Your task to perform on an android device: turn pop-ups off in chrome Image 0: 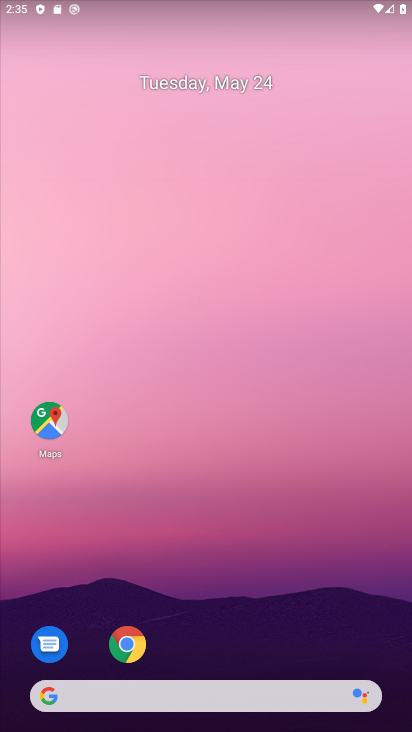
Step 0: drag from (311, 636) to (334, 185)
Your task to perform on an android device: turn pop-ups off in chrome Image 1: 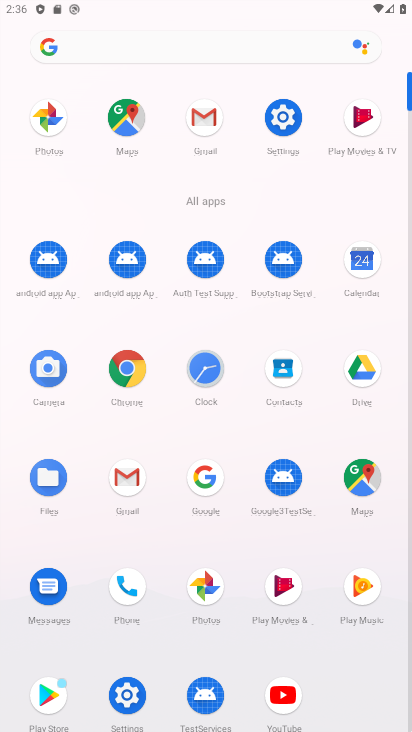
Step 1: click (126, 362)
Your task to perform on an android device: turn pop-ups off in chrome Image 2: 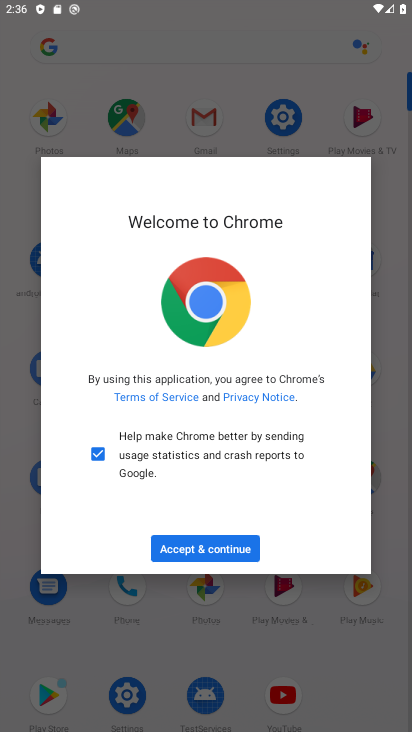
Step 2: click (224, 540)
Your task to perform on an android device: turn pop-ups off in chrome Image 3: 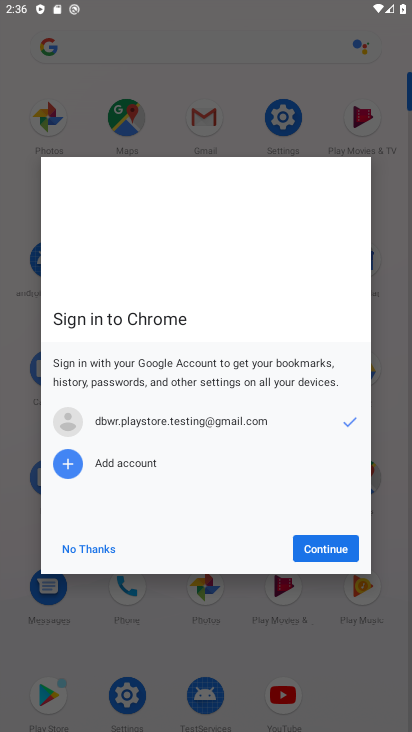
Step 3: click (342, 550)
Your task to perform on an android device: turn pop-ups off in chrome Image 4: 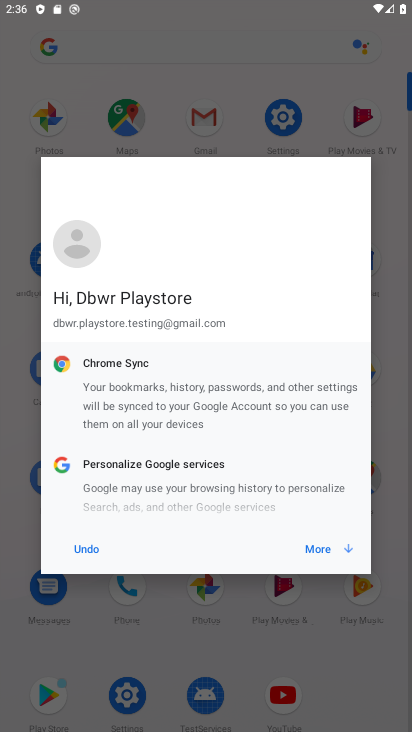
Step 4: click (331, 537)
Your task to perform on an android device: turn pop-ups off in chrome Image 5: 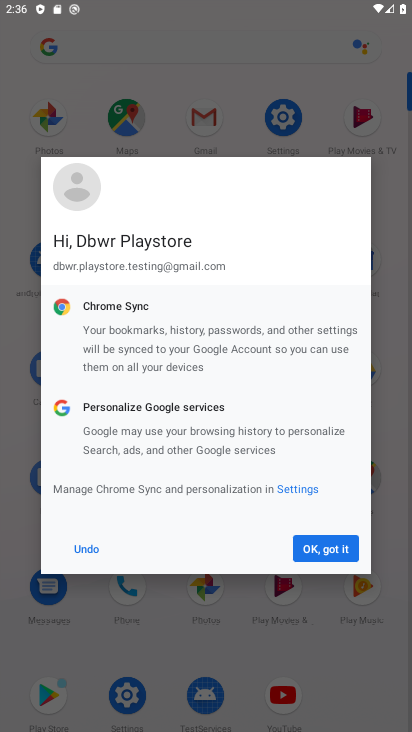
Step 5: click (337, 550)
Your task to perform on an android device: turn pop-ups off in chrome Image 6: 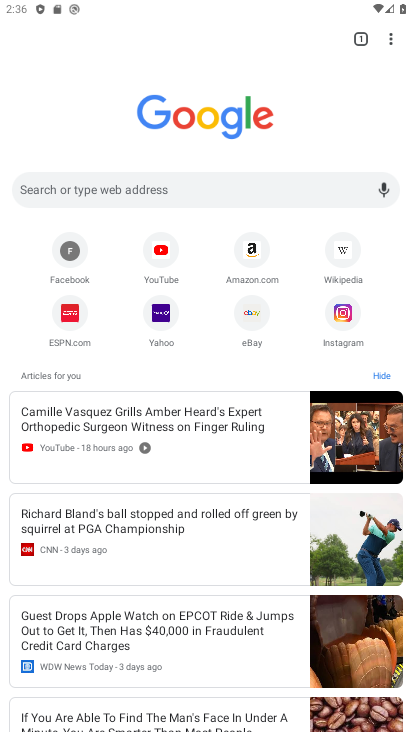
Step 6: drag from (404, 48) to (252, 335)
Your task to perform on an android device: turn pop-ups off in chrome Image 7: 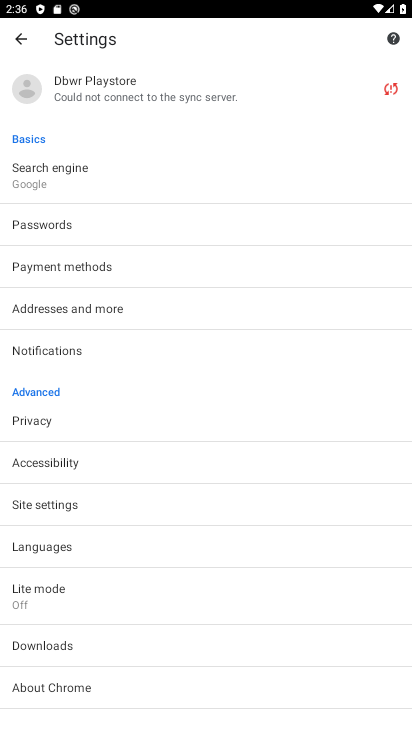
Step 7: click (87, 509)
Your task to perform on an android device: turn pop-ups off in chrome Image 8: 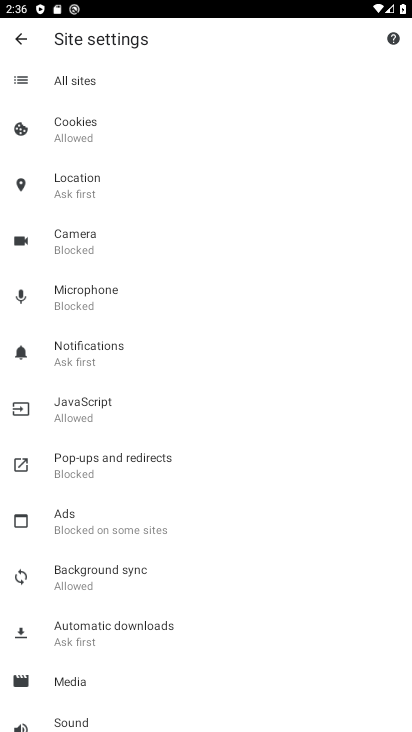
Step 8: click (157, 462)
Your task to perform on an android device: turn pop-ups off in chrome Image 9: 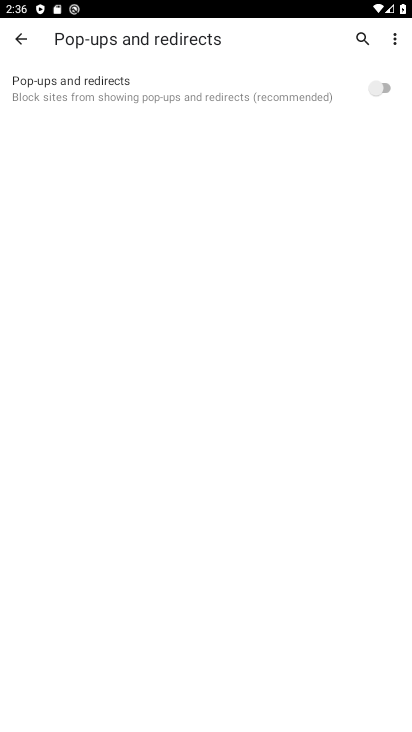
Step 9: task complete